Your task to perform on an android device: change text size in settings app Image 0: 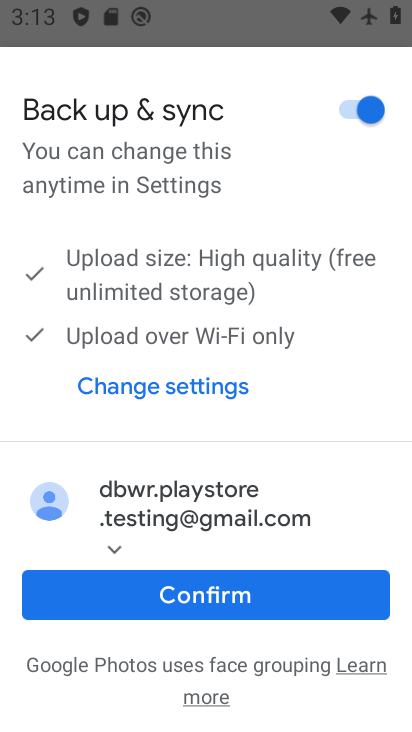
Step 0: press home button
Your task to perform on an android device: change text size in settings app Image 1: 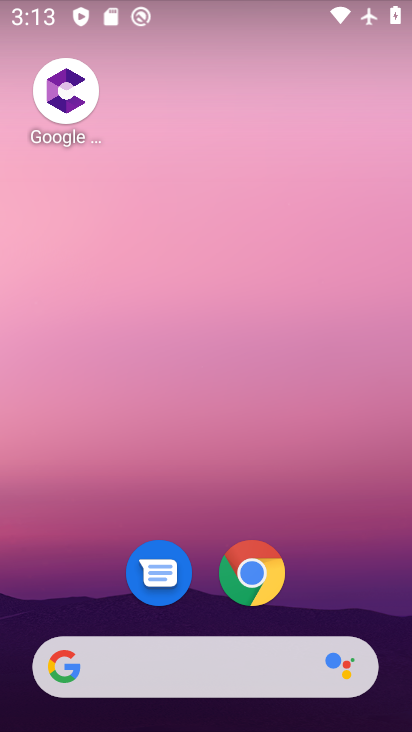
Step 1: drag from (234, 639) to (313, 282)
Your task to perform on an android device: change text size in settings app Image 2: 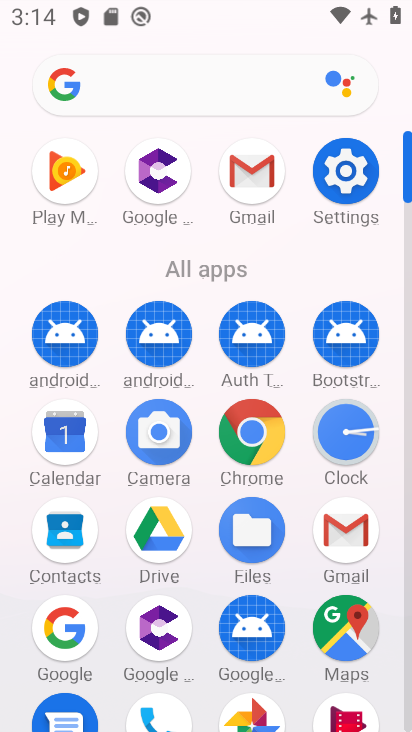
Step 2: click (345, 181)
Your task to perform on an android device: change text size in settings app Image 3: 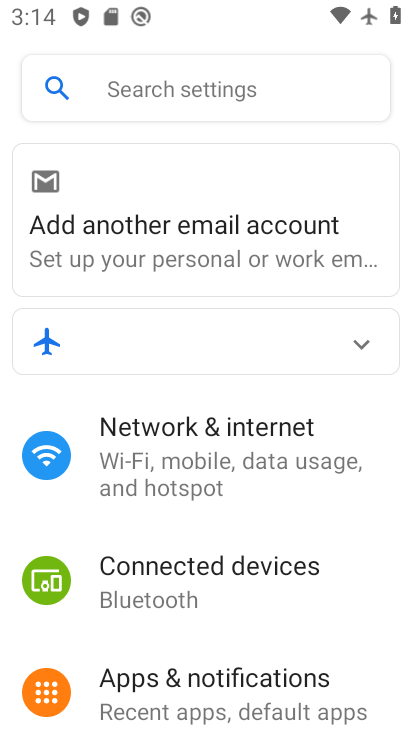
Step 3: drag from (219, 607) to (232, 290)
Your task to perform on an android device: change text size in settings app Image 4: 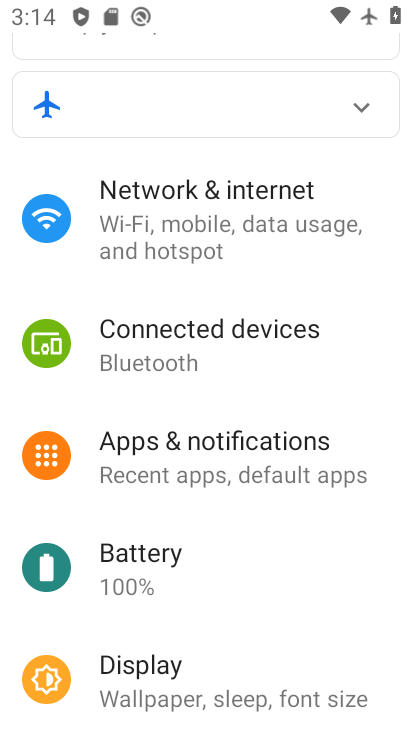
Step 4: drag from (113, 687) to (164, 204)
Your task to perform on an android device: change text size in settings app Image 5: 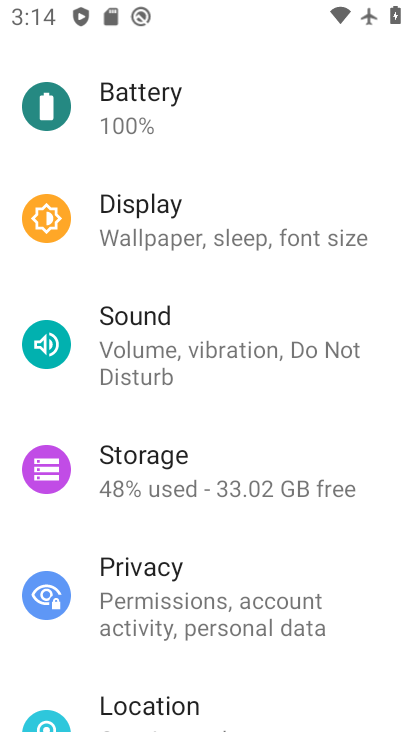
Step 5: drag from (196, 694) to (196, 396)
Your task to perform on an android device: change text size in settings app Image 6: 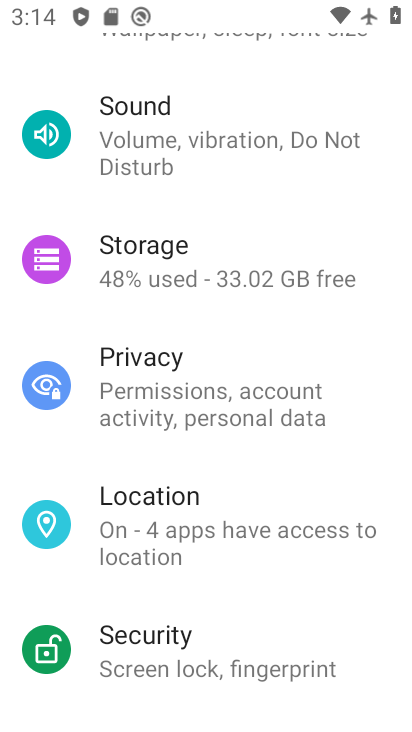
Step 6: drag from (200, 668) to (199, 363)
Your task to perform on an android device: change text size in settings app Image 7: 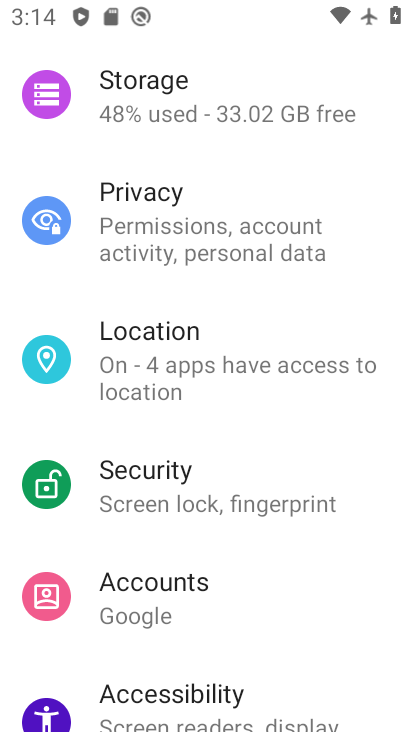
Step 7: click (173, 703)
Your task to perform on an android device: change text size in settings app Image 8: 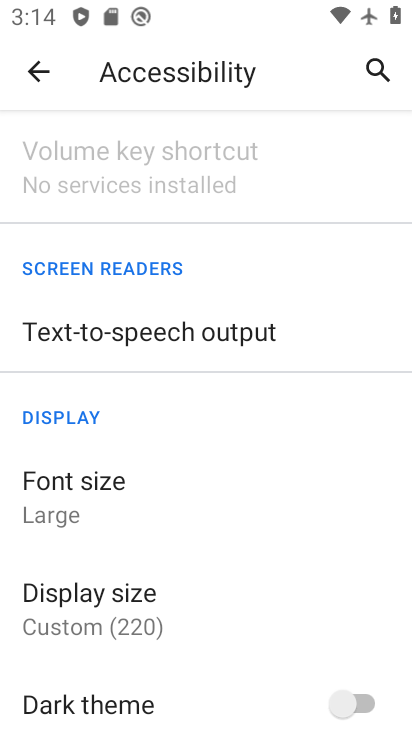
Step 8: click (85, 512)
Your task to perform on an android device: change text size in settings app Image 9: 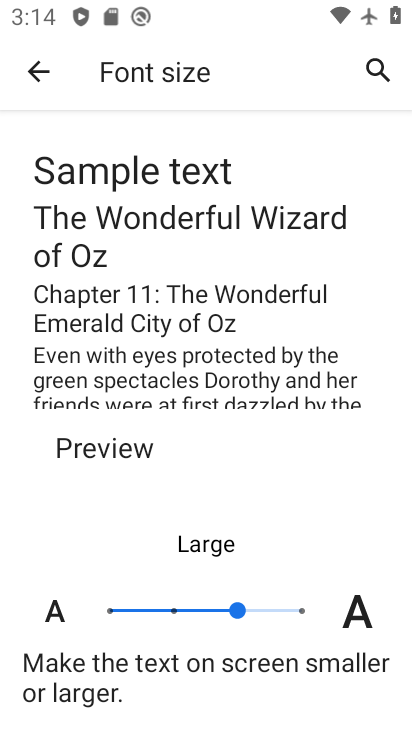
Step 9: click (170, 606)
Your task to perform on an android device: change text size in settings app Image 10: 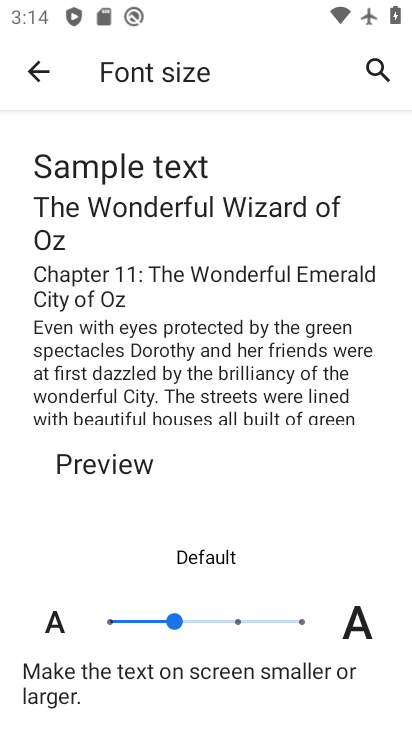
Step 10: task complete